Your task to perform on an android device: Go to calendar. Show me events next week Image 0: 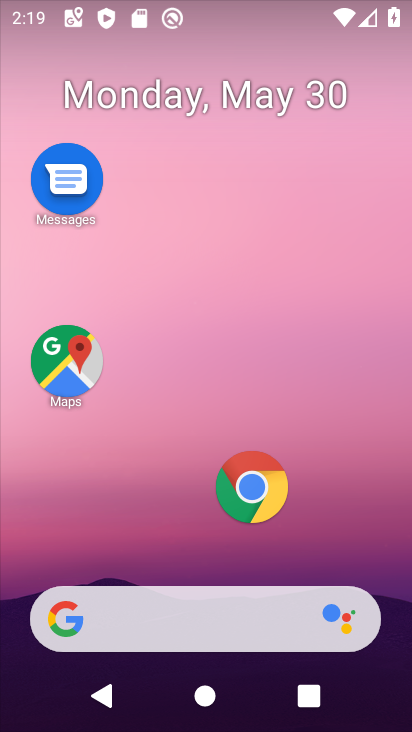
Step 0: drag from (229, 565) to (173, 145)
Your task to perform on an android device: Go to calendar. Show me events next week Image 1: 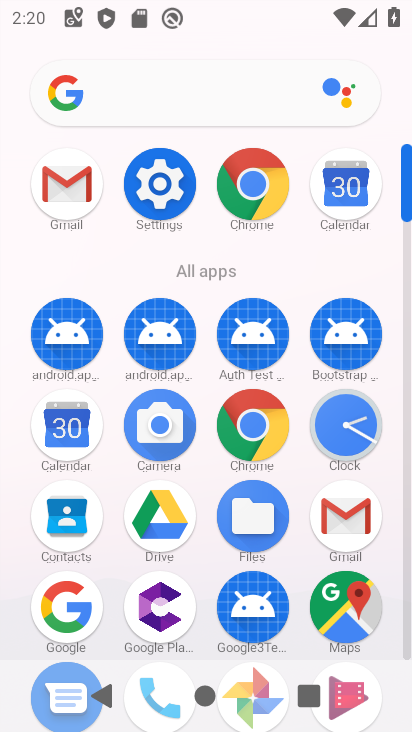
Step 1: click (85, 448)
Your task to perform on an android device: Go to calendar. Show me events next week Image 2: 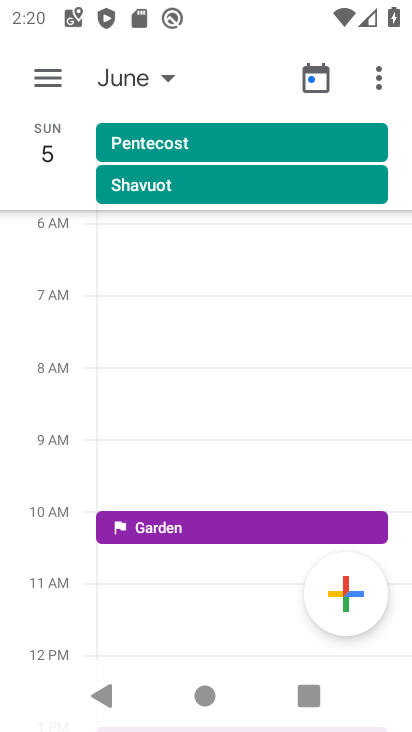
Step 2: click (52, 64)
Your task to perform on an android device: Go to calendar. Show me events next week Image 3: 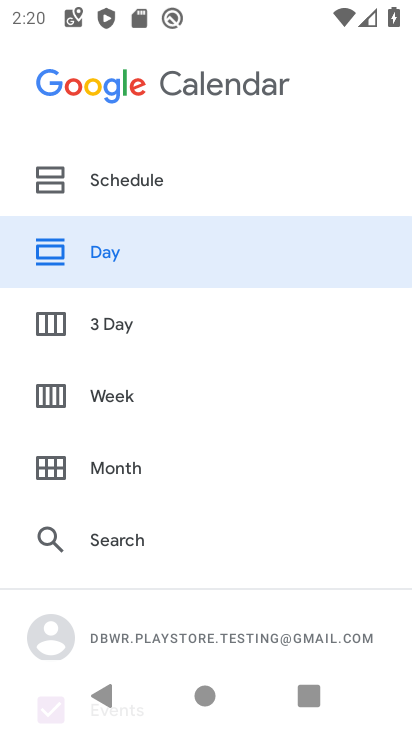
Step 3: click (118, 403)
Your task to perform on an android device: Go to calendar. Show me events next week Image 4: 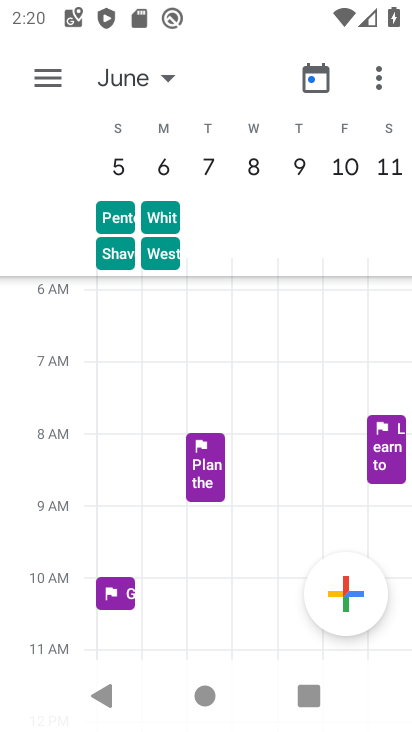
Step 4: task complete